Your task to perform on an android device: check data usage Image 0: 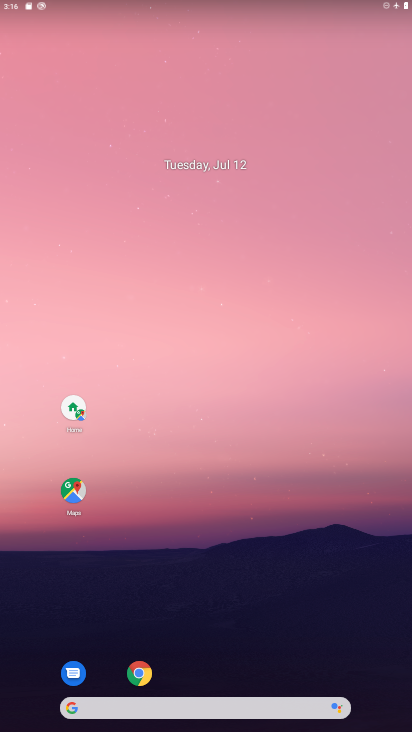
Step 0: drag from (286, 634) to (282, 155)
Your task to perform on an android device: check data usage Image 1: 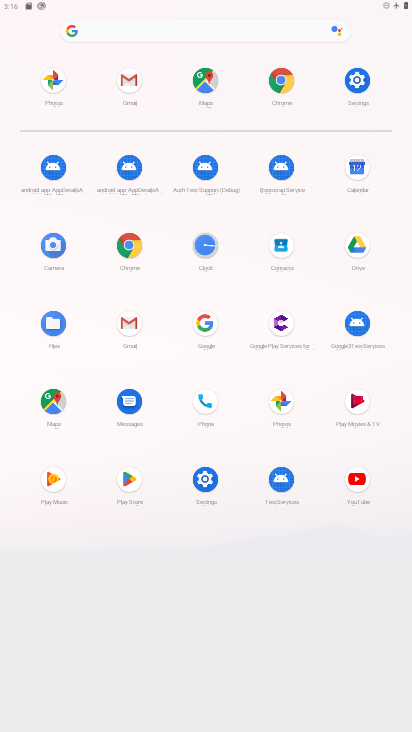
Step 1: click (351, 84)
Your task to perform on an android device: check data usage Image 2: 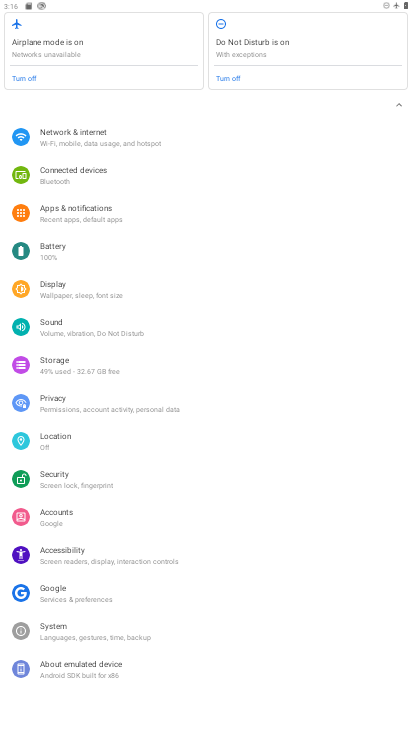
Step 2: click (82, 137)
Your task to perform on an android device: check data usage Image 3: 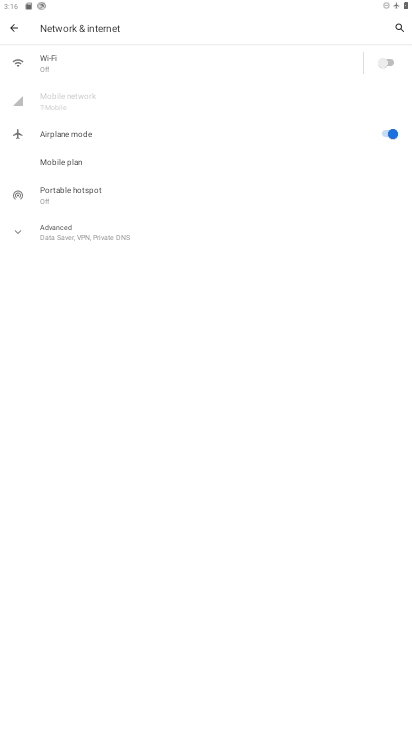
Step 3: click (72, 85)
Your task to perform on an android device: check data usage Image 4: 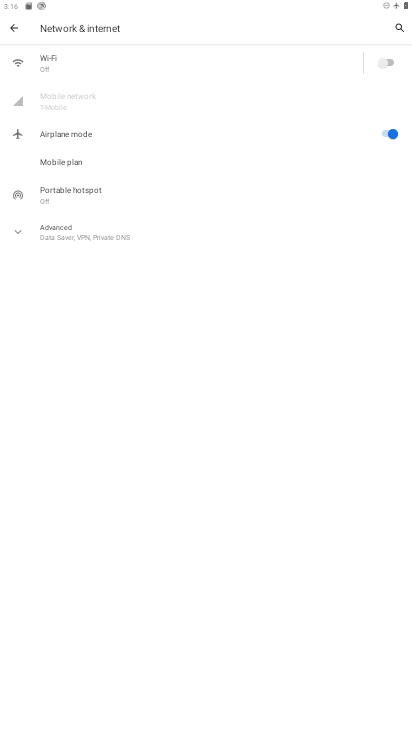
Step 4: task complete